Your task to perform on an android device: toggle location history Image 0: 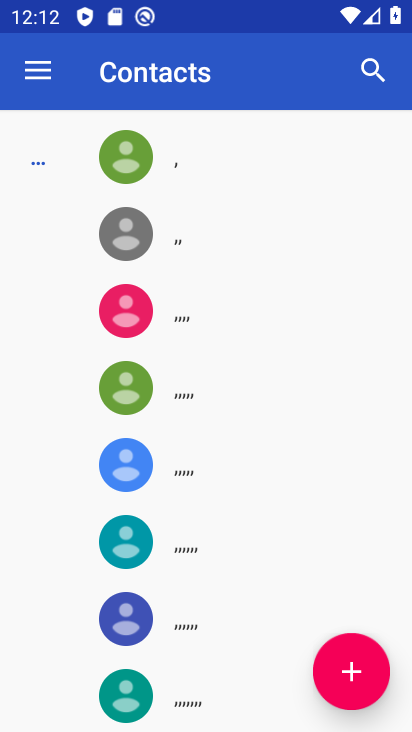
Step 0: press home button
Your task to perform on an android device: toggle location history Image 1: 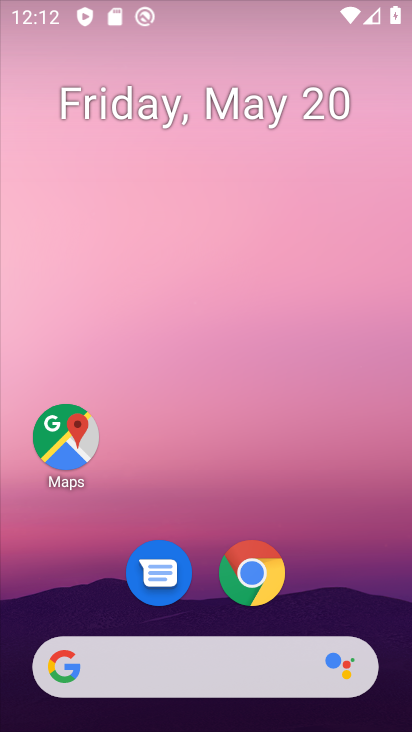
Step 1: drag from (309, 625) to (306, 10)
Your task to perform on an android device: toggle location history Image 2: 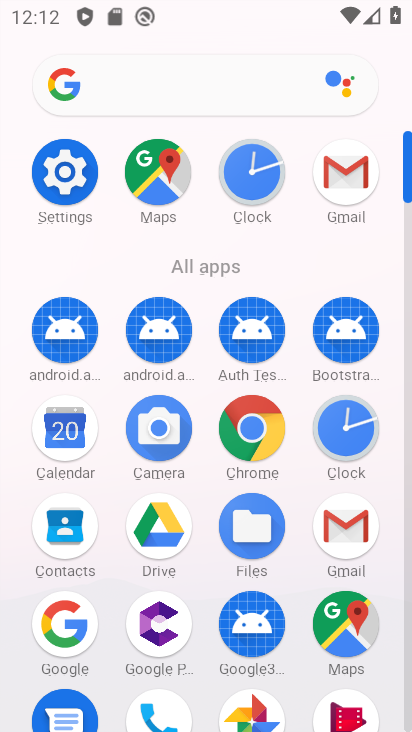
Step 2: click (63, 170)
Your task to perform on an android device: toggle location history Image 3: 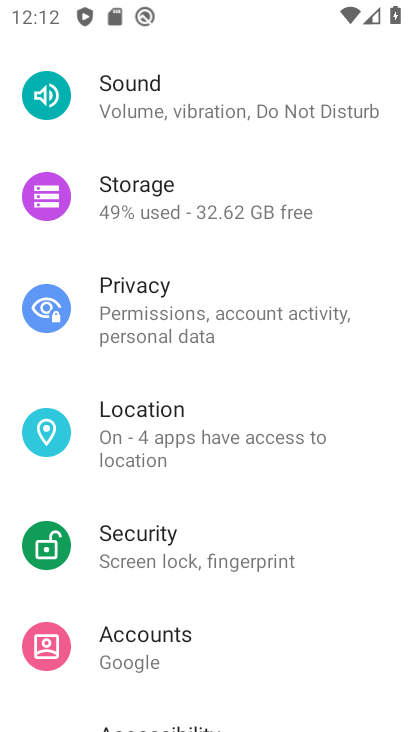
Step 3: click (191, 425)
Your task to perform on an android device: toggle location history Image 4: 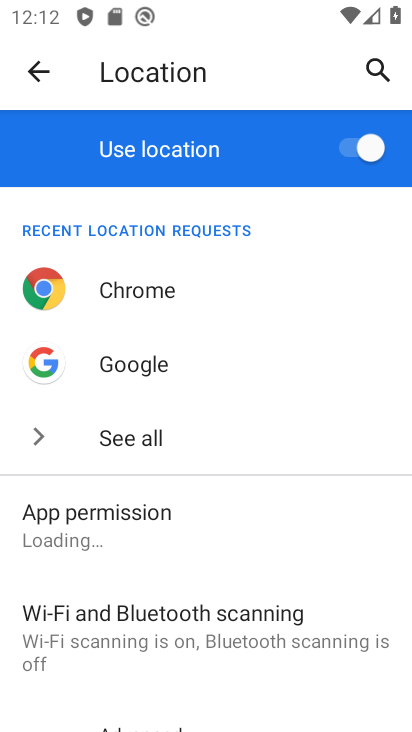
Step 4: drag from (174, 591) to (155, 214)
Your task to perform on an android device: toggle location history Image 5: 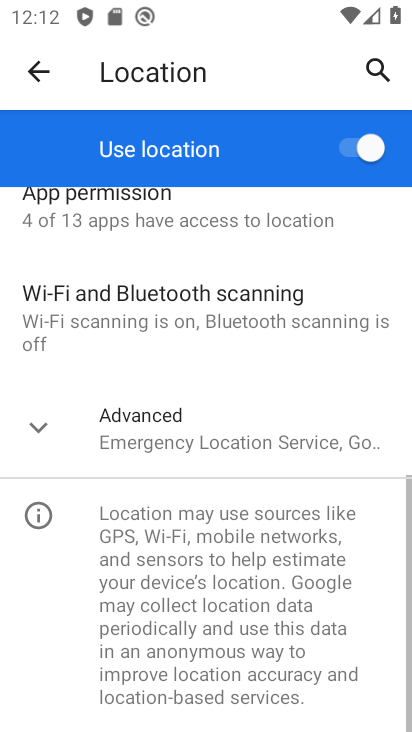
Step 5: click (146, 426)
Your task to perform on an android device: toggle location history Image 6: 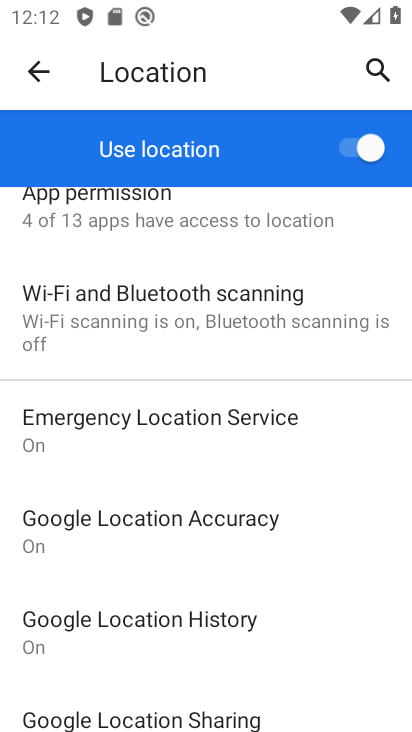
Step 6: click (192, 626)
Your task to perform on an android device: toggle location history Image 7: 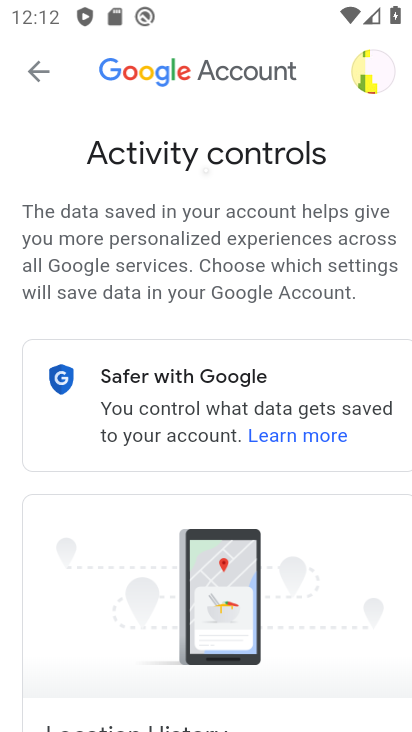
Step 7: drag from (236, 565) to (210, 136)
Your task to perform on an android device: toggle location history Image 8: 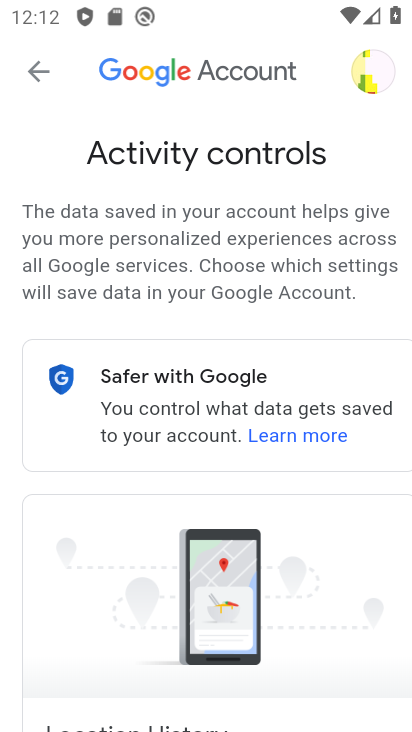
Step 8: drag from (216, 457) to (211, 71)
Your task to perform on an android device: toggle location history Image 9: 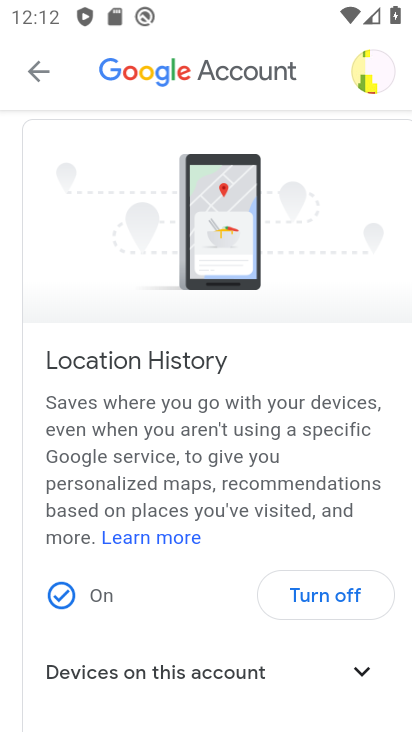
Step 9: click (334, 591)
Your task to perform on an android device: toggle location history Image 10: 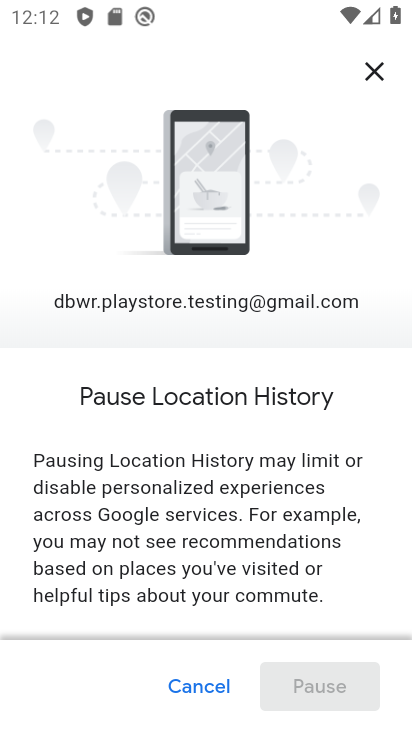
Step 10: drag from (231, 588) to (202, 106)
Your task to perform on an android device: toggle location history Image 11: 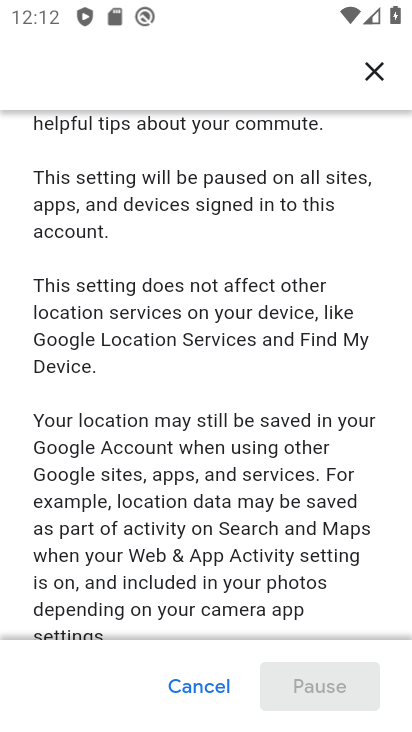
Step 11: drag from (235, 560) to (167, 162)
Your task to perform on an android device: toggle location history Image 12: 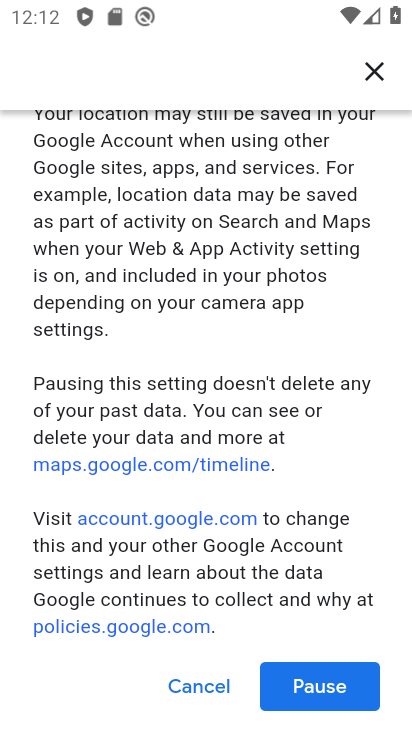
Step 12: click (329, 685)
Your task to perform on an android device: toggle location history Image 13: 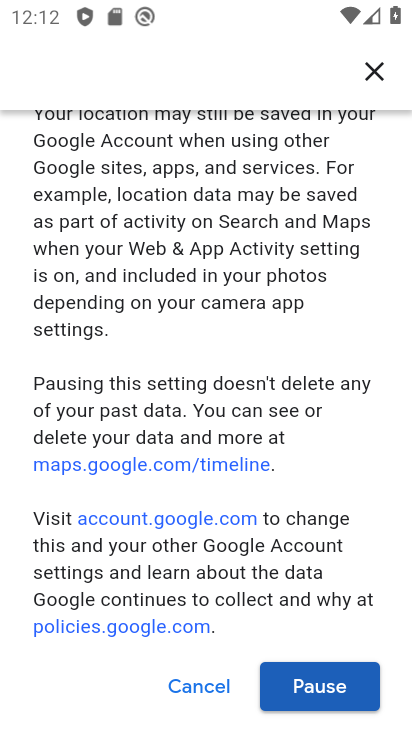
Step 13: click (328, 684)
Your task to perform on an android device: toggle location history Image 14: 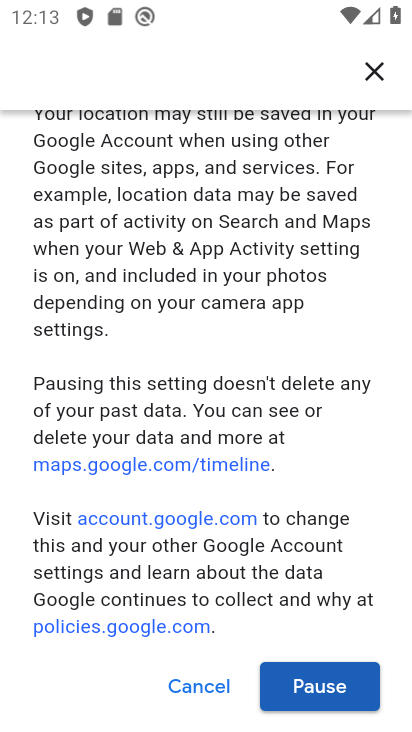
Step 14: click (328, 683)
Your task to perform on an android device: toggle location history Image 15: 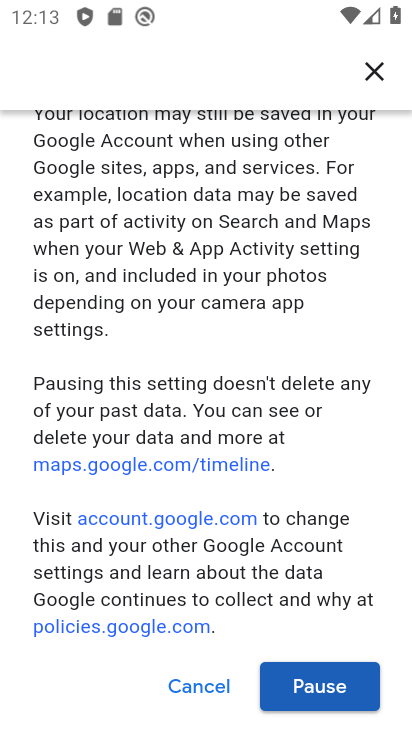
Step 15: click (327, 682)
Your task to perform on an android device: toggle location history Image 16: 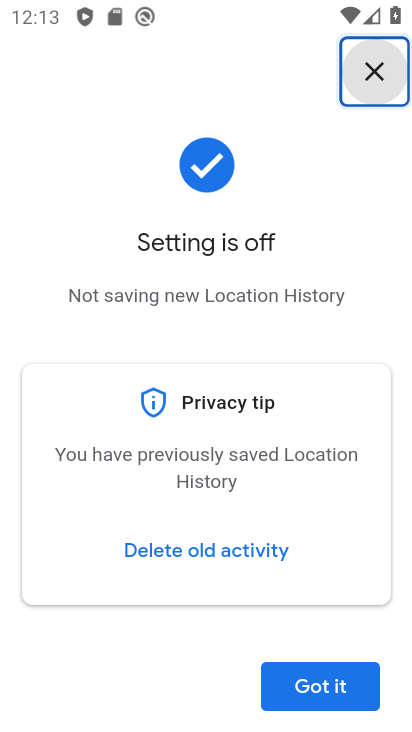
Step 16: task complete